Your task to perform on an android device: change notification settings in the gmail app Image 0: 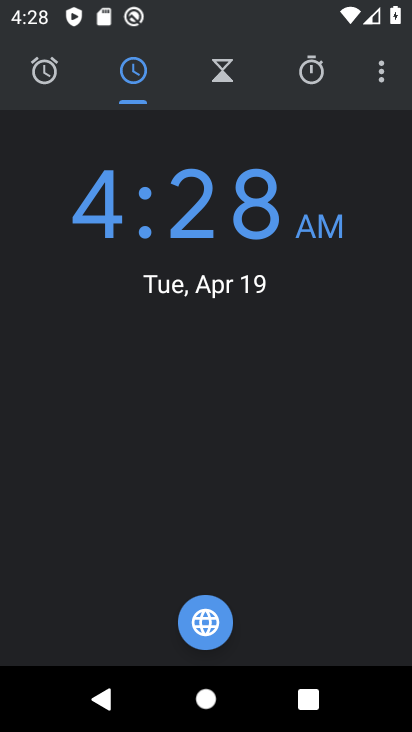
Step 0: press home button
Your task to perform on an android device: change notification settings in the gmail app Image 1: 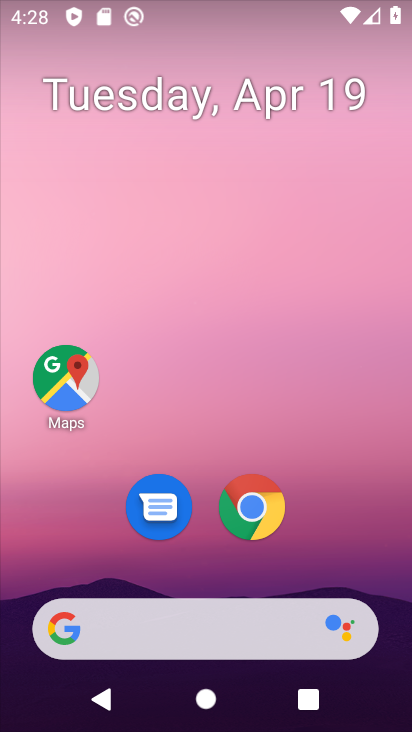
Step 1: drag from (306, 567) to (318, 102)
Your task to perform on an android device: change notification settings in the gmail app Image 2: 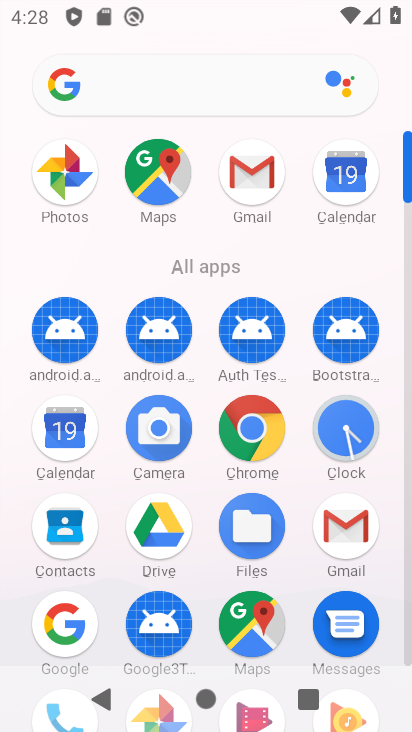
Step 2: click (252, 173)
Your task to perform on an android device: change notification settings in the gmail app Image 3: 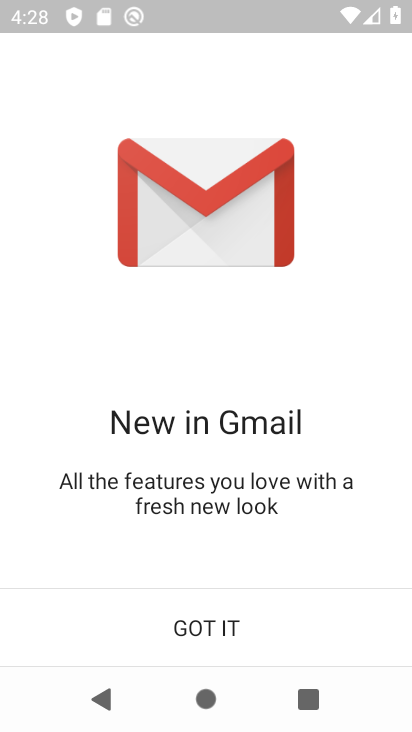
Step 3: click (199, 630)
Your task to perform on an android device: change notification settings in the gmail app Image 4: 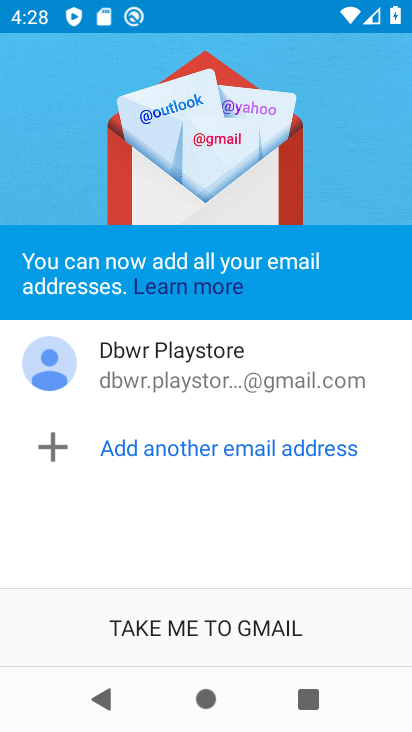
Step 4: click (204, 622)
Your task to perform on an android device: change notification settings in the gmail app Image 5: 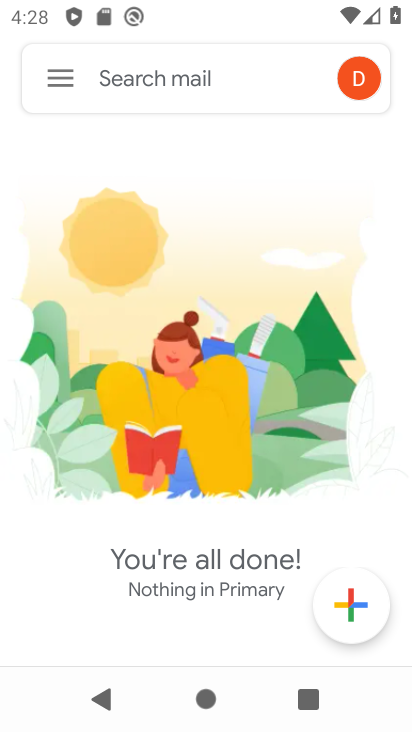
Step 5: click (54, 65)
Your task to perform on an android device: change notification settings in the gmail app Image 6: 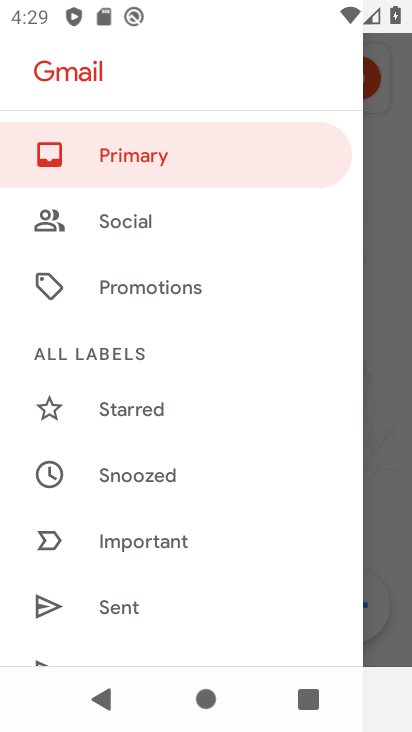
Step 6: drag from (225, 565) to (185, 132)
Your task to perform on an android device: change notification settings in the gmail app Image 7: 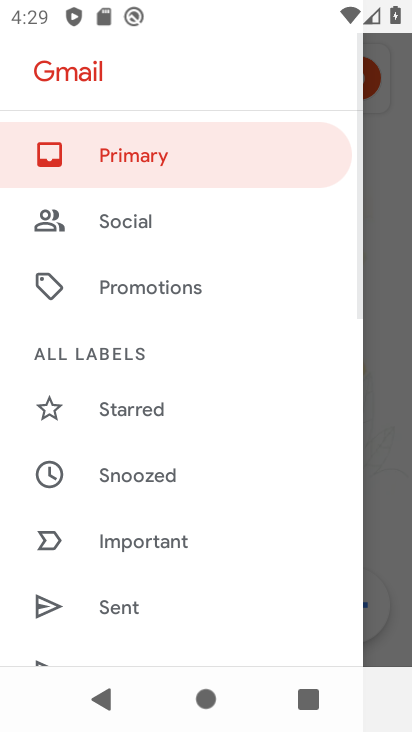
Step 7: drag from (129, 561) to (167, 142)
Your task to perform on an android device: change notification settings in the gmail app Image 8: 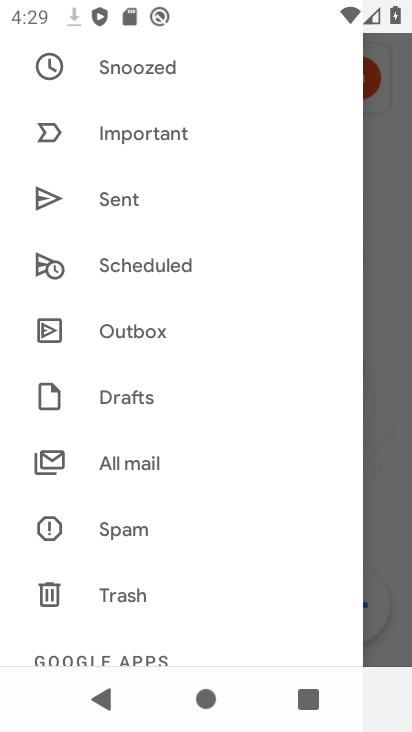
Step 8: drag from (136, 590) to (191, 160)
Your task to perform on an android device: change notification settings in the gmail app Image 9: 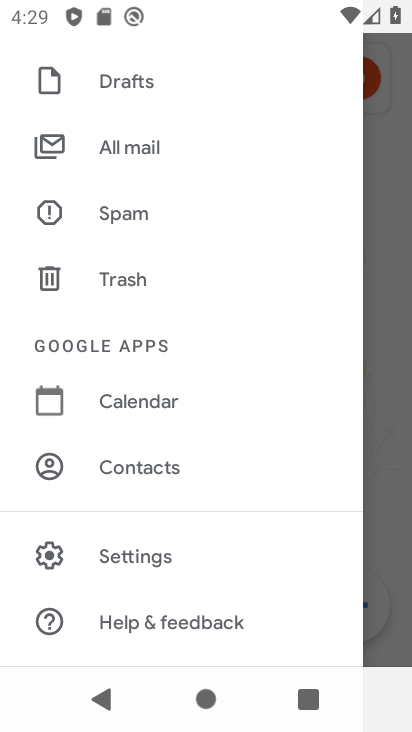
Step 9: click (155, 558)
Your task to perform on an android device: change notification settings in the gmail app Image 10: 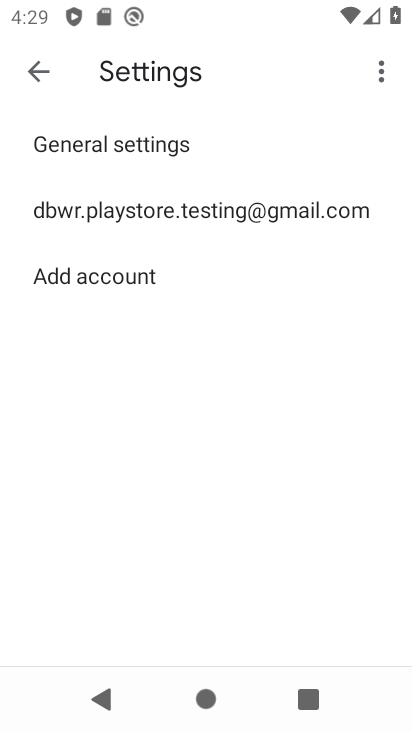
Step 10: click (165, 208)
Your task to perform on an android device: change notification settings in the gmail app Image 11: 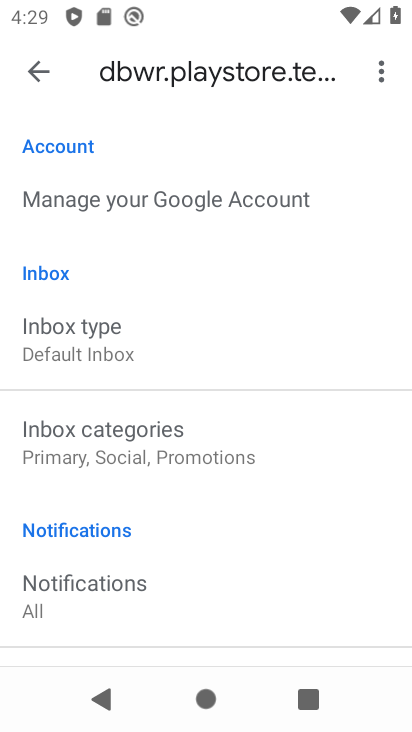
Step 11: drag from (219, 597) to (250, 191)
Your task to perform on an android device: change notification settings in the gmail app Image 12: 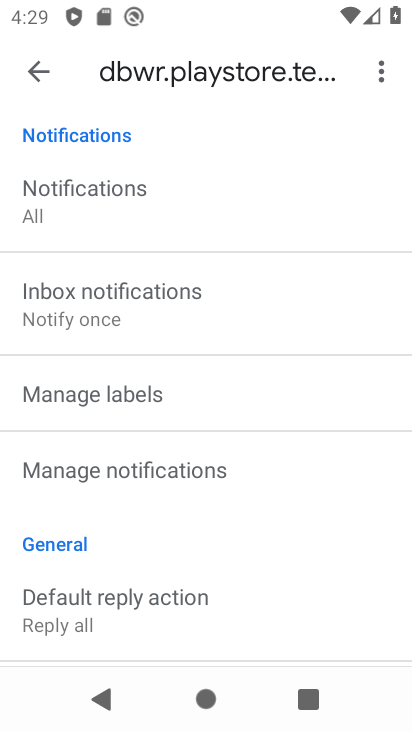
Step 12: click (152, 479)
Your task to perform on an android device: change notification settings in the gmail app Image 13: 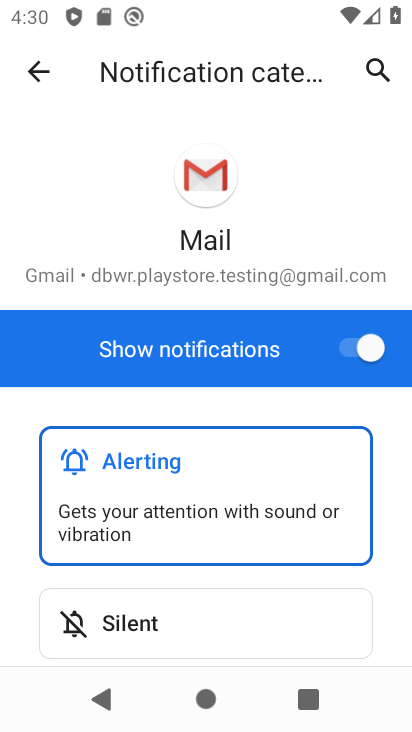
Step 13: click (337, 348)
Your task to perform on an android device: change notification settings in the gmail app Image 14: 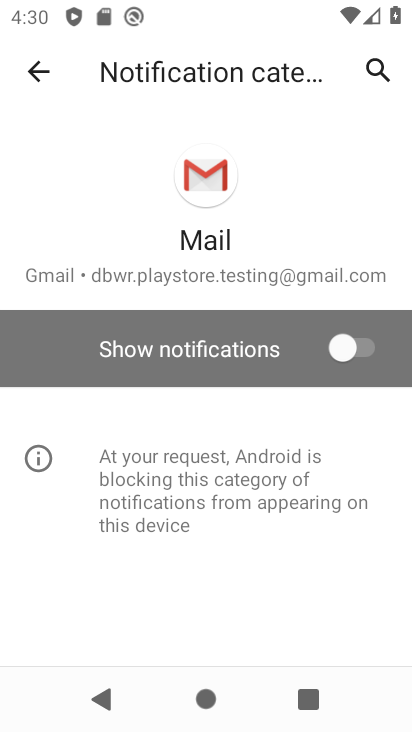
Step 14: task complete